Your task to perform on an android device: Search for pizza restaurants on Maps Image 0: 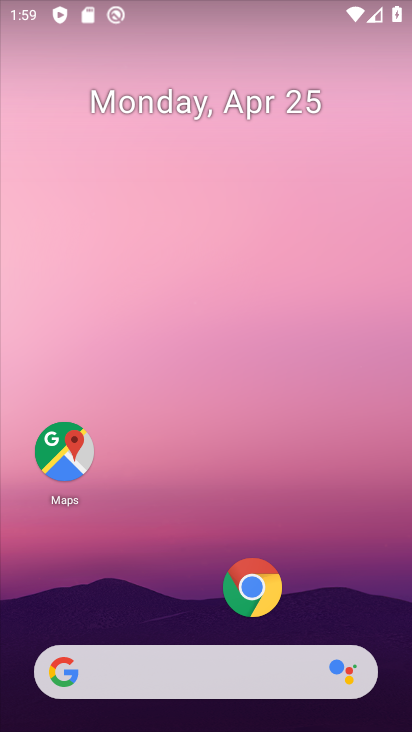
Step 0: press home button
Your task to perform on an android device: Search for pizza restaurants on Maps Image 1: 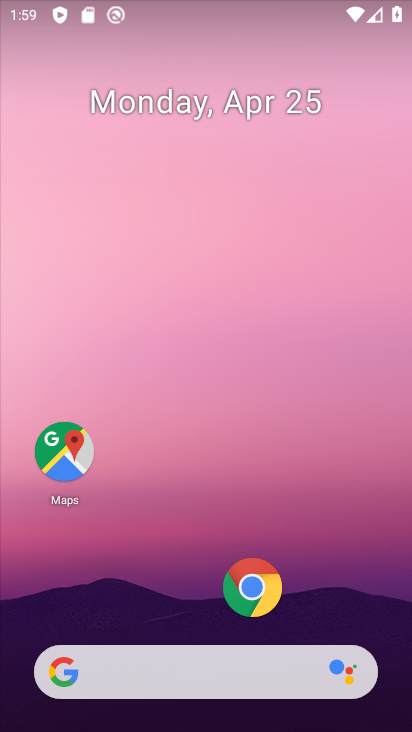
Step 1: click (71, 467)
Your task to perform on an android device: Search for pizza restaurants on Maps Image 2: 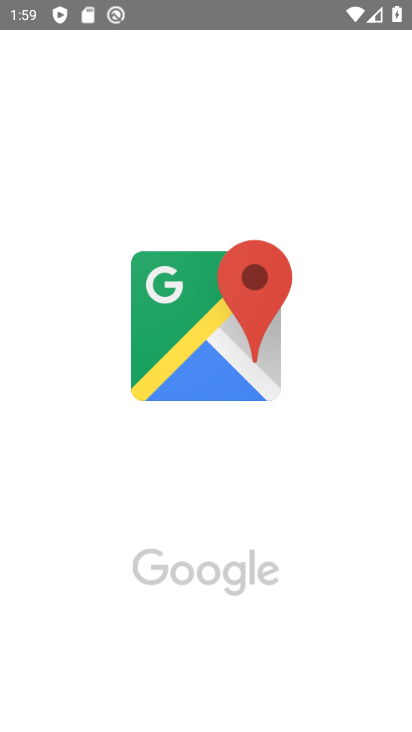
Step 2: click (153, 528)
Your task to perform on an android device: Search for pizza restaurants on Maps Image 3: 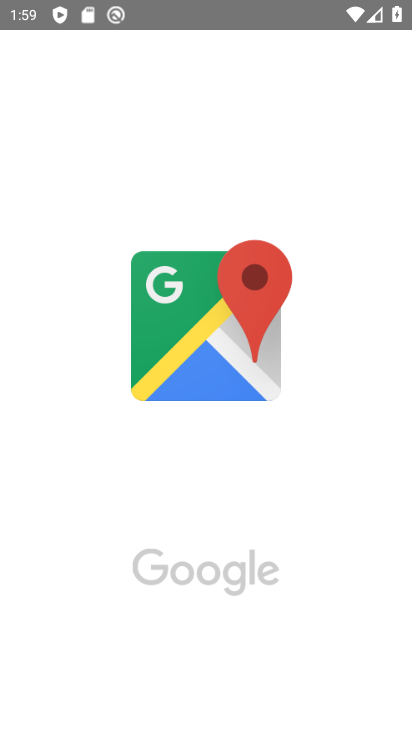
Step 3: click (173, 341)
Your task to perform on an android device: Search for pizza restaurants on Maps Image 4: 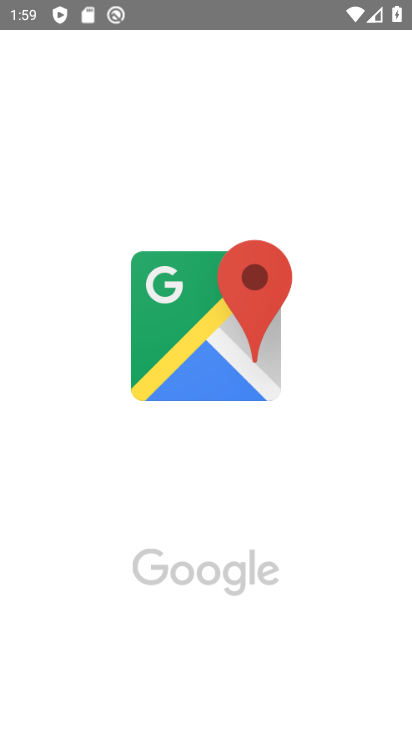
Step 4: click (201, 413)
Your task to perform on an android device: Search for pizza restaurants on Maps Image 5: 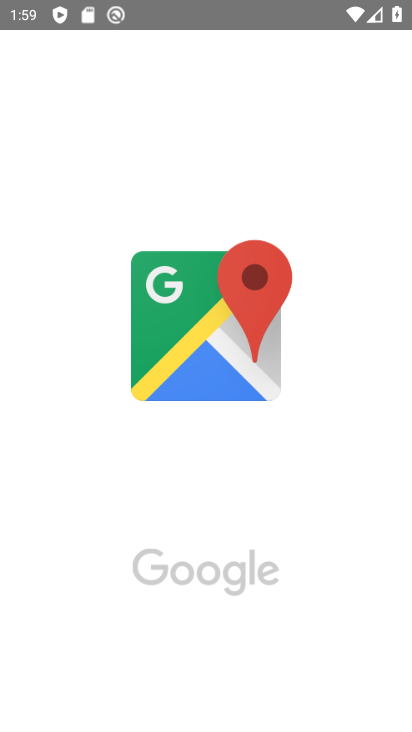
Step 5: task complete